Your task to perform on an android device: Search for seafood restaurants on Google Maps Image 0: 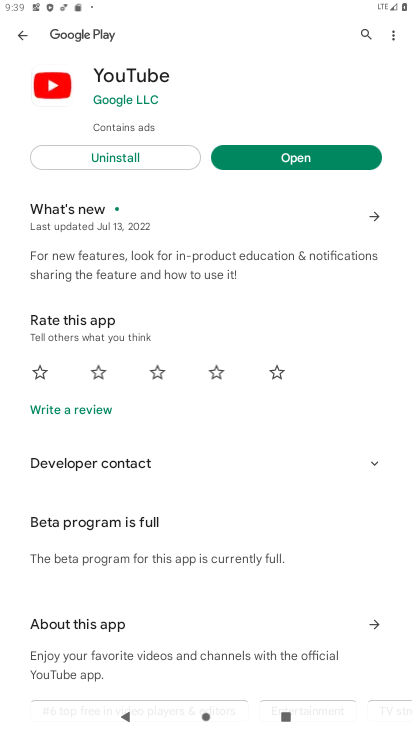
Step 0: press home button
Your task to perform on an android device: Search for seafood restaurants on Google Maps Image 1: 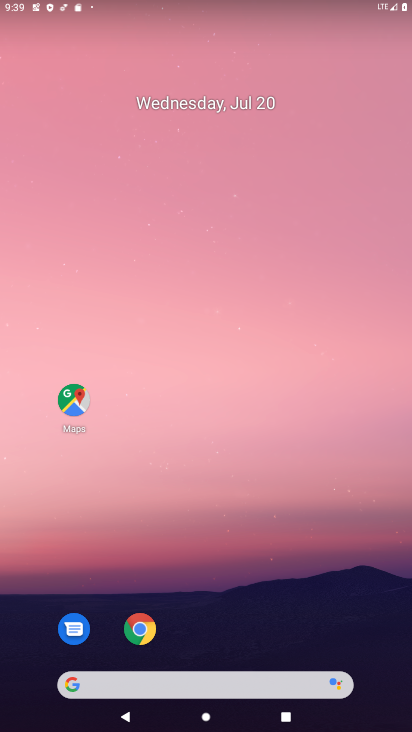
Step 1: click (76, 418)
Your task to perform on an android device: Search for seafood restaurants on Google Maps Image 2: 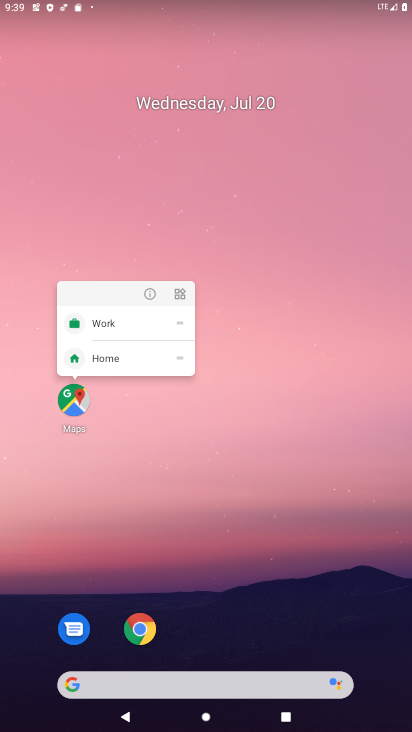
Step 2: click (76, 418)
Your task to perform on an android device: Search for seafood restaurants on Google Maps Image 3: 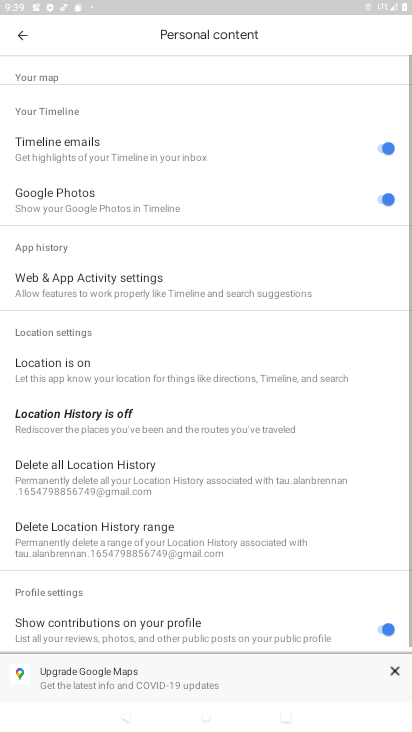
Step 3: click (32, 32)
Your task to perform on an android device: Search for seafood restaurants on Google Maps Image 4: 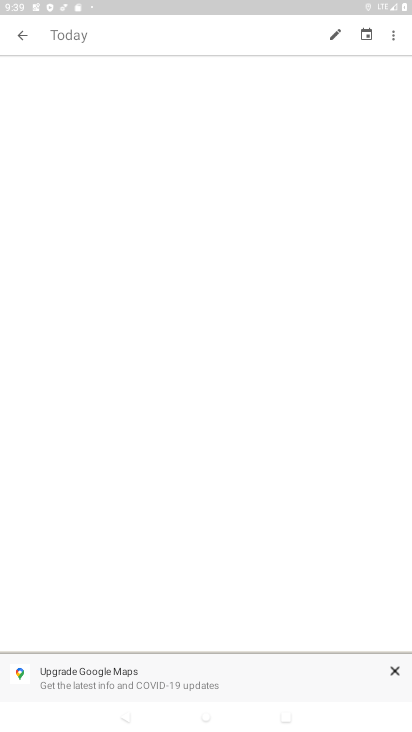
Step 4: click (32, 32)
Your task to perform on an android device: Search for seafood restaurants on Google Maps Image 5: 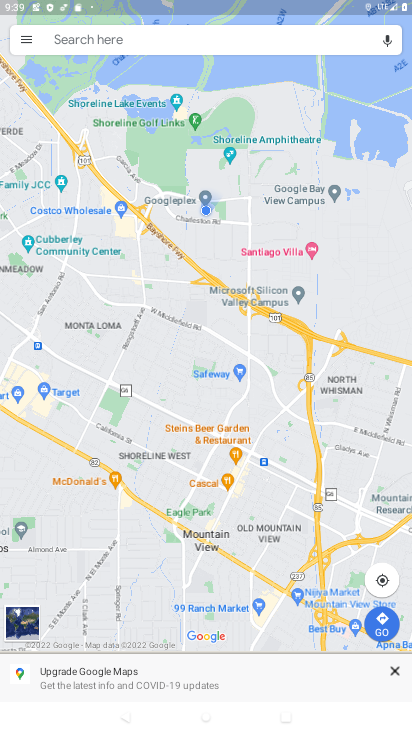
Step 5: click (148, 42)
Your task to perform on an android device: Search for seafood restaurants on Google Maps Image 6: 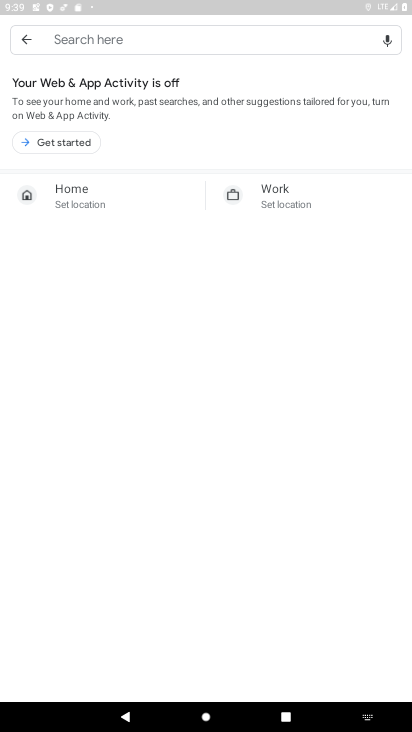
Step 6: type "seafood restaurants "
Your task to perform on an android device: Search for seafood restaurants on Google Maps Image 7: 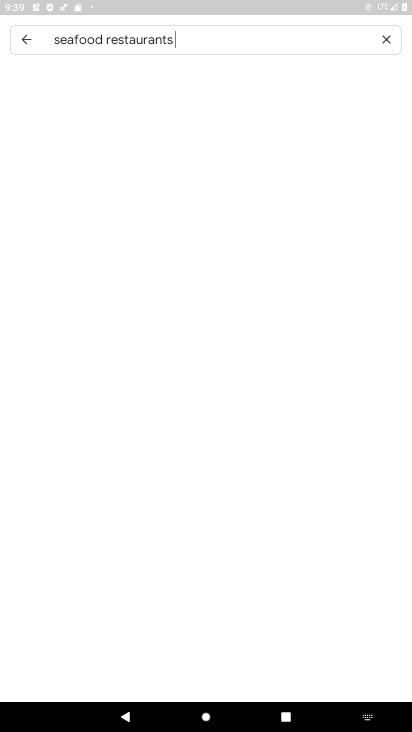
Step 7: type ""
Your task to perform on an android device: Search for seafood restaurants on Google Maps Image 8: 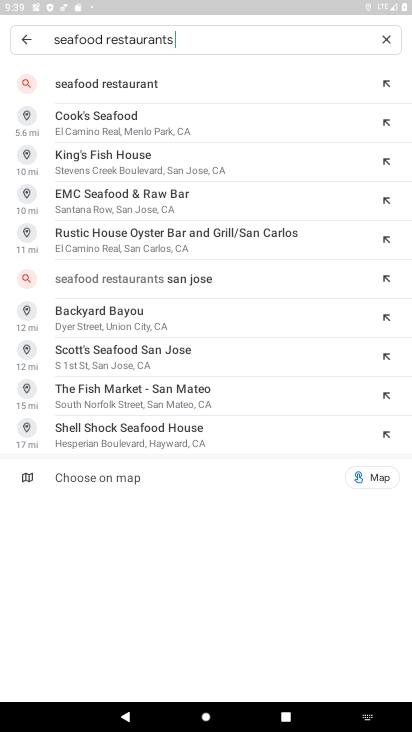
Step 8: click (135, 67)
Your task to perform on an android device: Search for seafood restaurants on Google Maps Image 9: 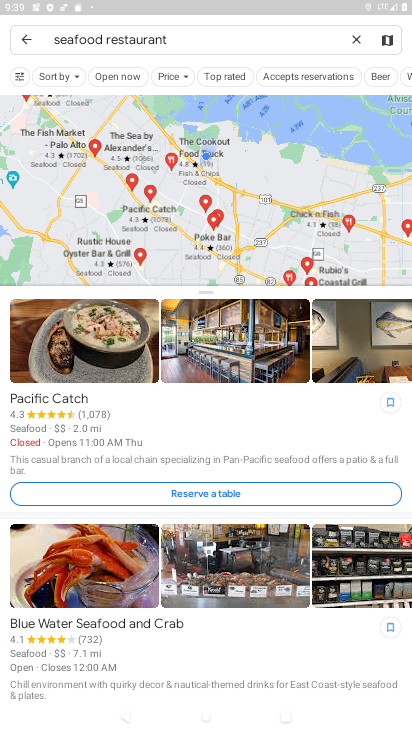
Step 9: task complete